Your task to perform on an android device: toggle javascript in the chrome app Image 0: 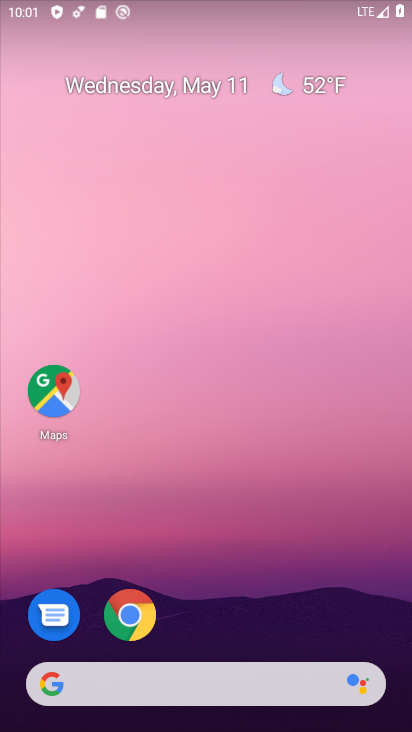
Step 0: click (126, 618)
Your task to perform on an android device: toggle javascript in the chrome app Image 1: 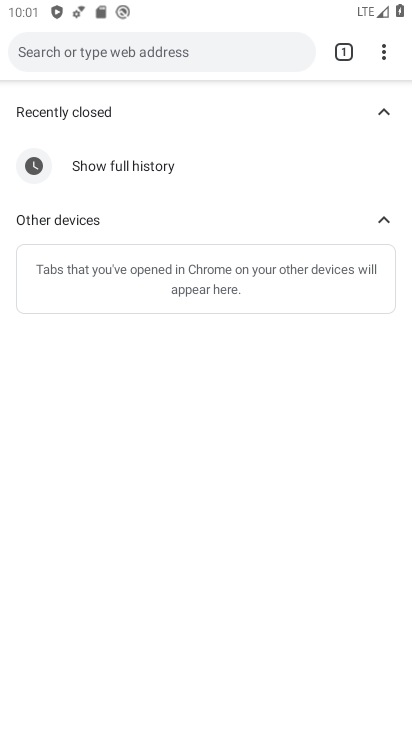
Step 1: click (384, 51)
Your task to perform on an android device: toggle javascript in the chrome app Image 2: 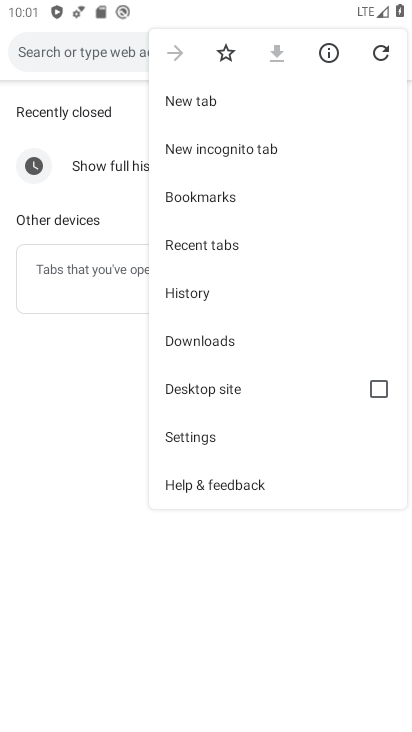
Step 2: click (192, 435)
Your task to perform on an android device: toggle javascript in the chrome app Image 3: 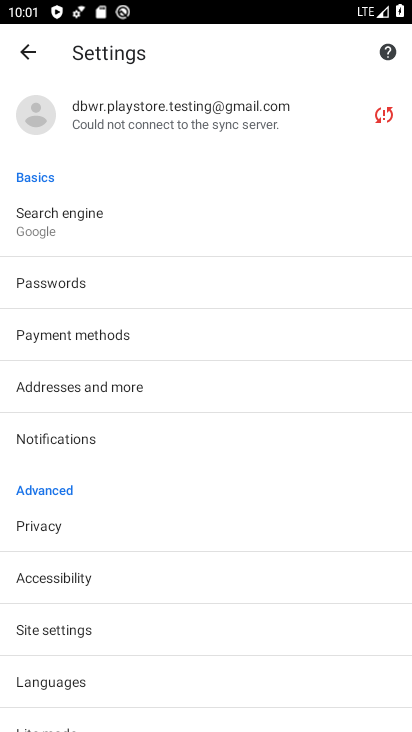
Step 3: click (56, 629)
Your task to perform on an android device: toggle javascript in the chrome app Image 4: 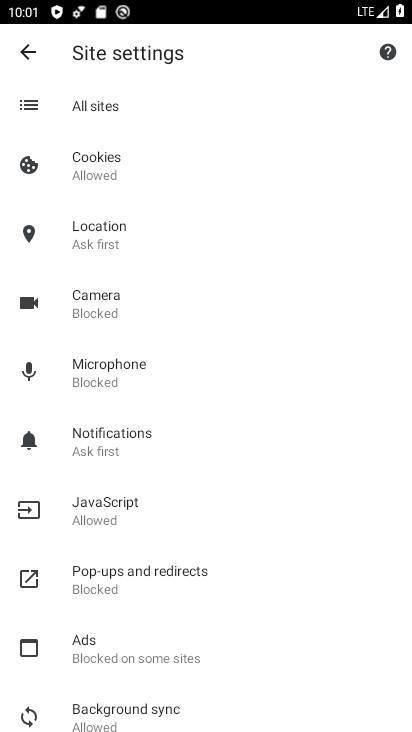
Step 4: click (99, 504)
Your task to perform on an android device: toggle javascript in the chrome app Image 5: 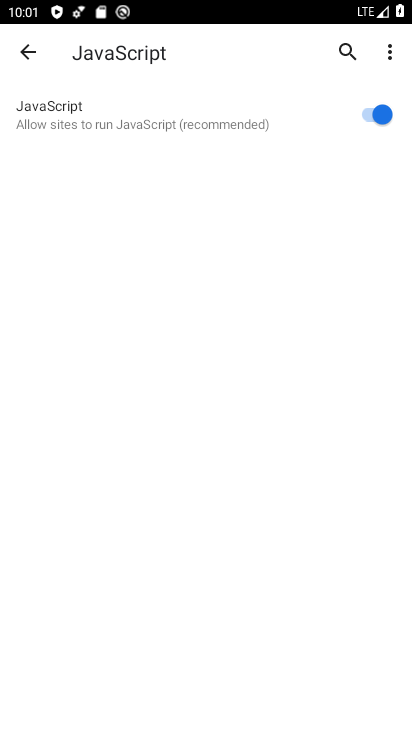
Step 5: click (374, 112)
Your task to perform on an android device: toggle javascript in the chrome app Image 6: 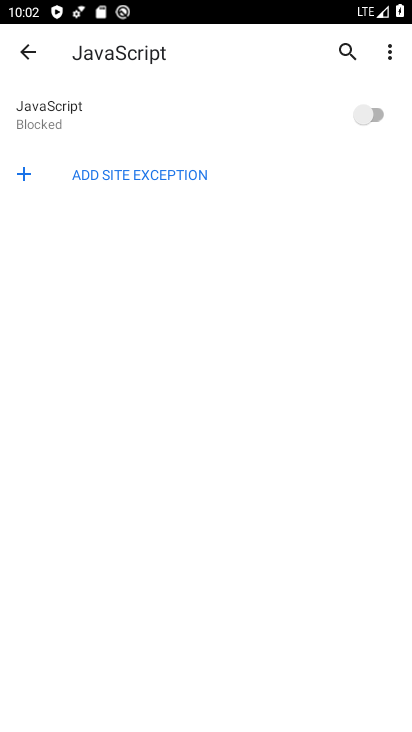
Step 6: task complete